Your task to perform on an android device: What's on my calendar today? Image 0: 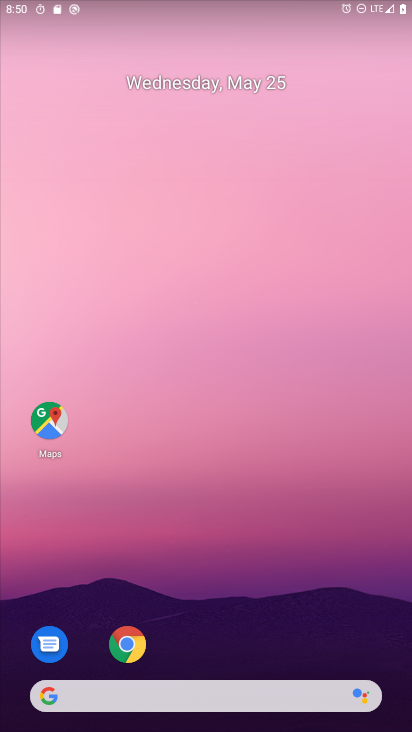
Step 0: drag from (363, 625) to (236, 43)
Your task to perform on an android device: What's on my calendar today? Image 1: 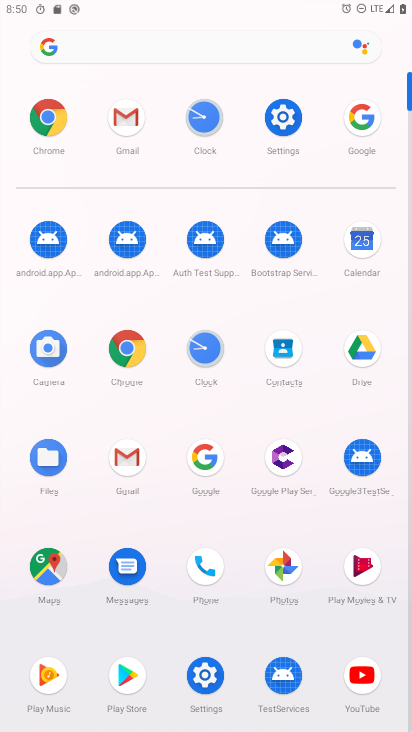
Step 1: click (374, 255)
Your task to perform on an android device: What's on my calendar today? Image 2: 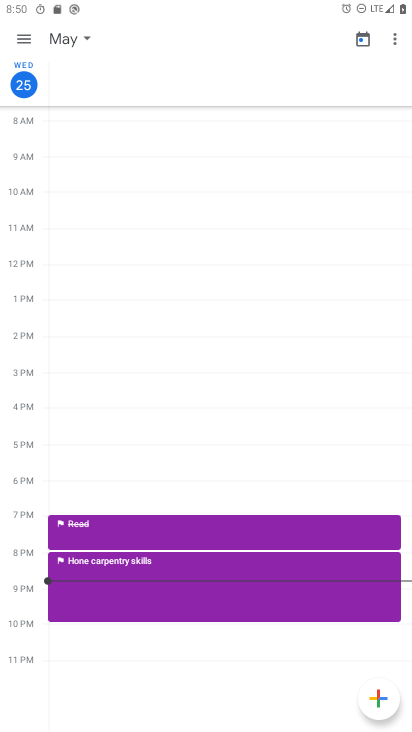
Step 2: click (57, 39)
Your task to perform on an android device: What's on my calendar today? Image 3: 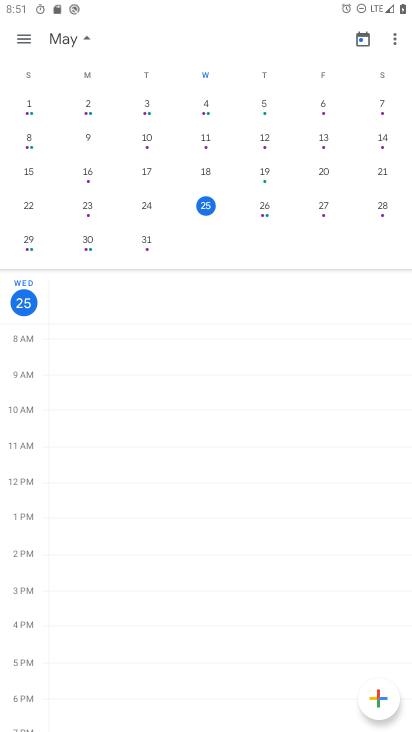
Step 3: click (265, 211)
Your task to perform on an android device: What's on my calendar today? Image 4: 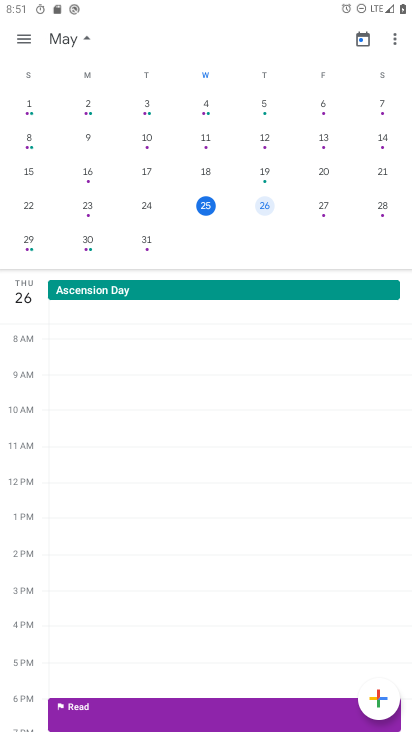
Step 4: click (179, 297)
Your task to perform on an android device: What's on my calendar today? Image 5: 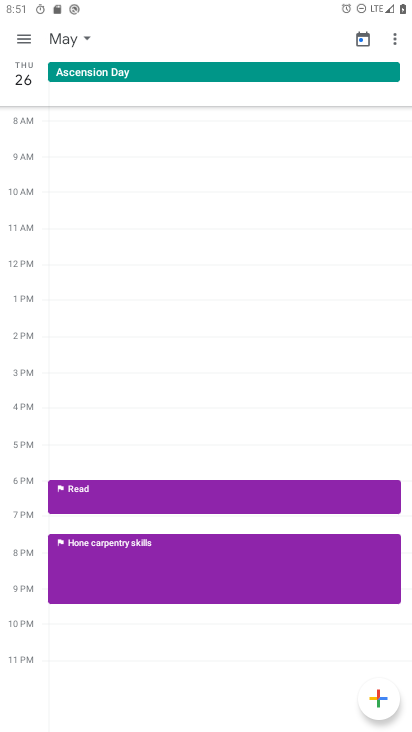
Step 5: click (108, 560)
Your task to perform on an android device: What's on my calendar today? Image 6: 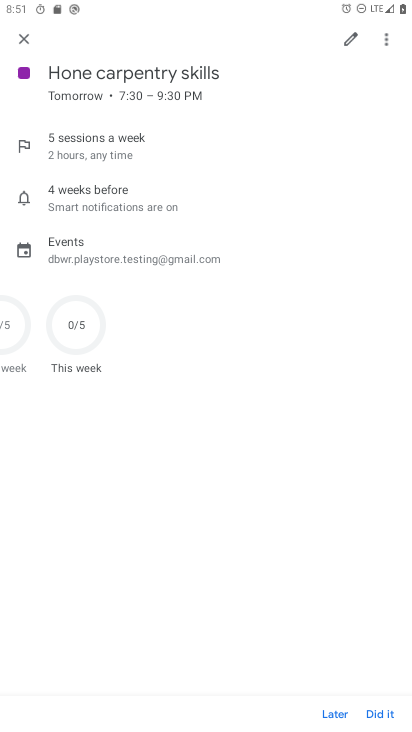
Step 6: task complete